Your task to perform on an android device: Open the web browser Image 0: 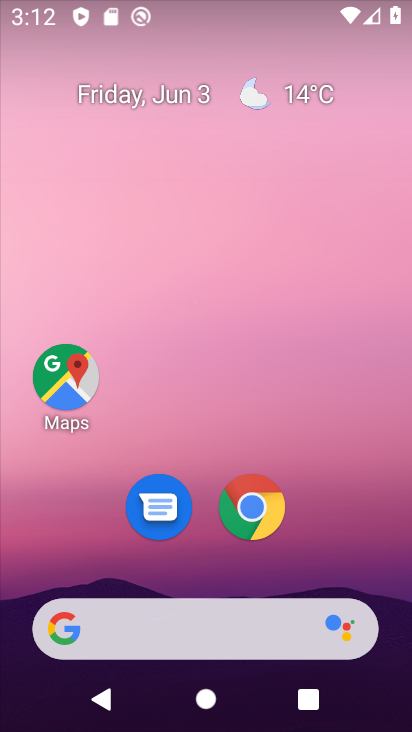
Step 0: click (251, 500)
Your task to perform on an android device: Open the web browser Image 1: 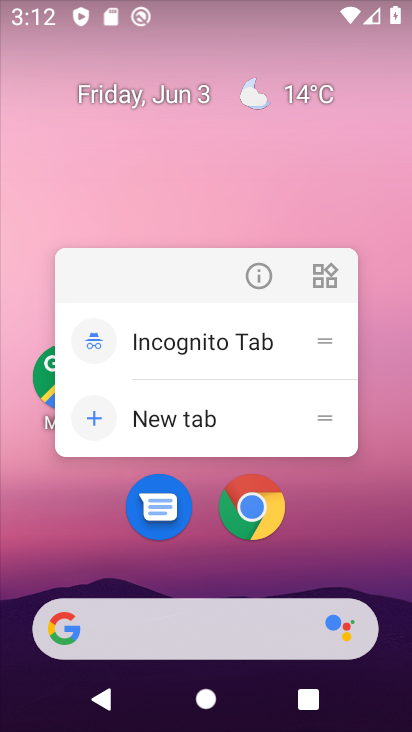
Step 1: click (251, 500)
Your task to perform on an android device: Open the web browser Image 2: 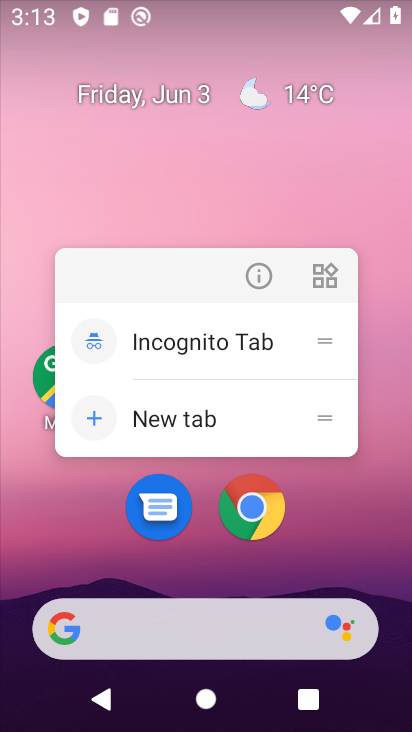
Step 2: click (251, 500)
Your task to perform on an android device: Open the web browser Image 3: 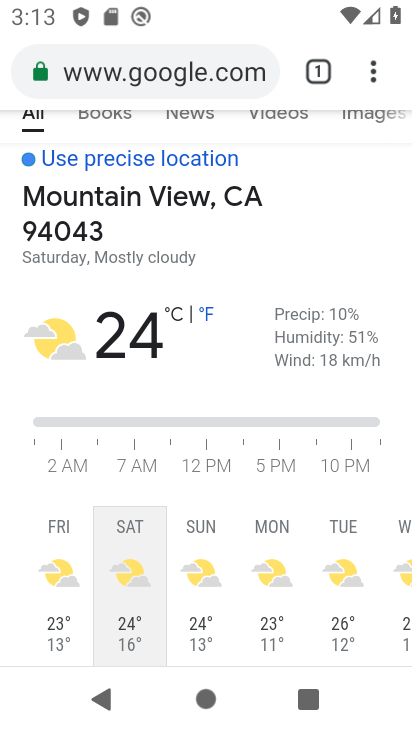
Step 3: click (156, 75)
Your task to perform on an android device: Open the web browser Image 4: 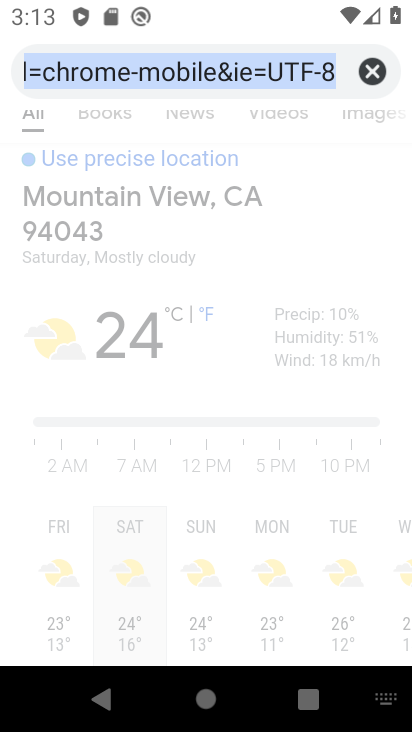
Step 4: task complete